Your task to perform on an android device: see creations saved in the google photos Image 0: 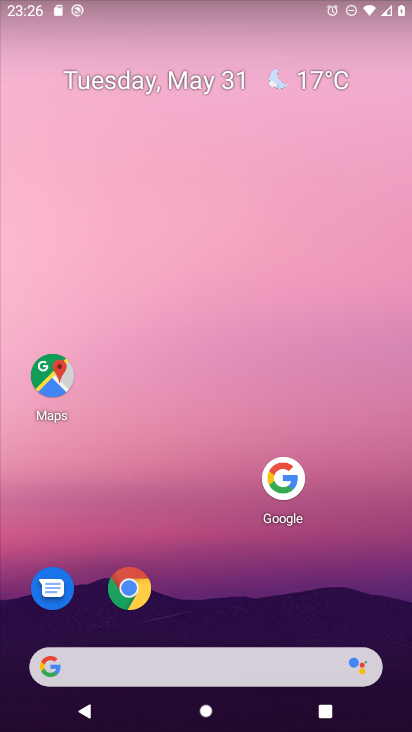
Step 0: press home button
Your task to perform on an android device: see creations saved in the google photos Image 1: 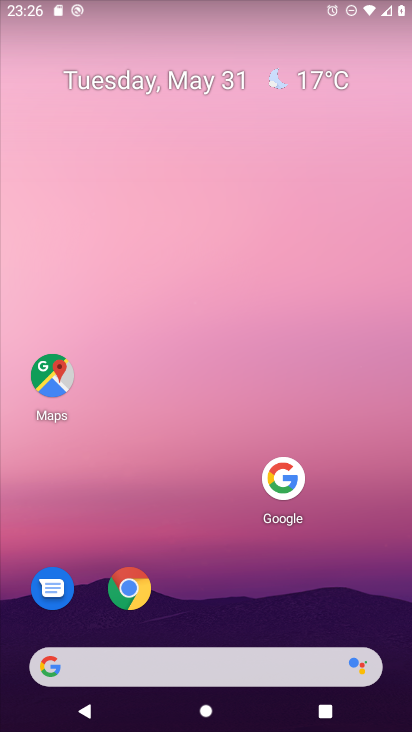
Step 1: drag from (189, 669) to (282, 112)
Your task to perform on an android device: see creations saved in the google photos Image 2: 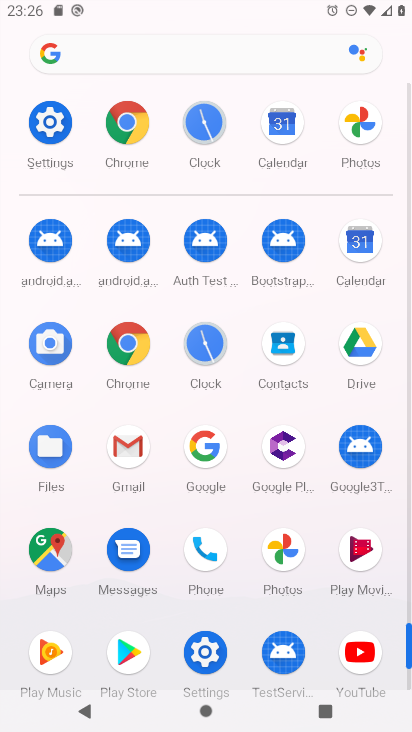
Step 2: click (283, 555)
Your task to perform on an android device: see creations saved in the google photos Image 3: 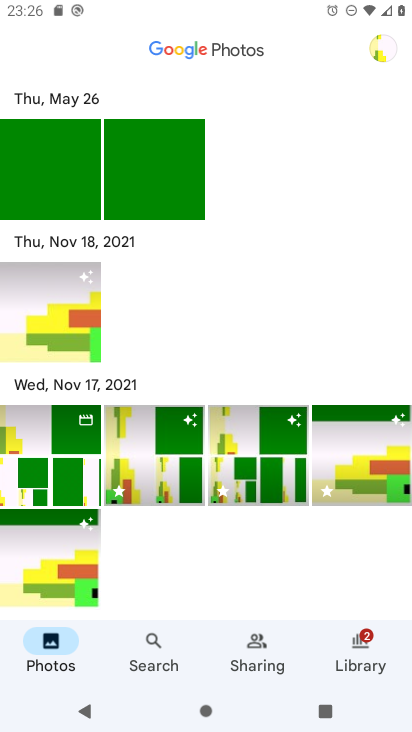
Step 3: click (149, 665)
Your task to perform on an android device: see creations saved in the google photos Image 4: 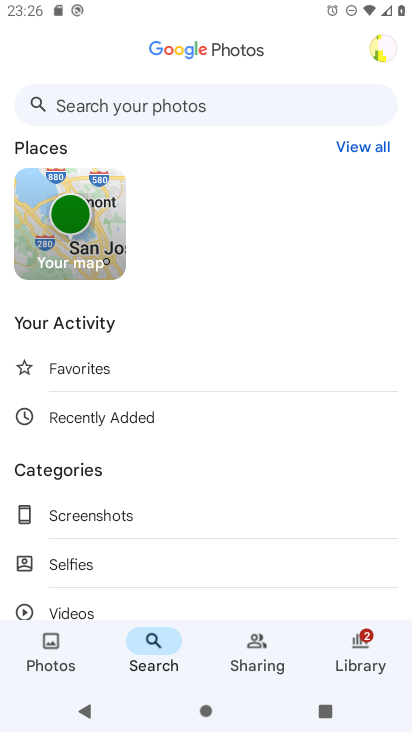
Step 4: drag from (191, 495) to (252, 136)
Your task to perform on an android device: see creations saved in the google photos Image 5: 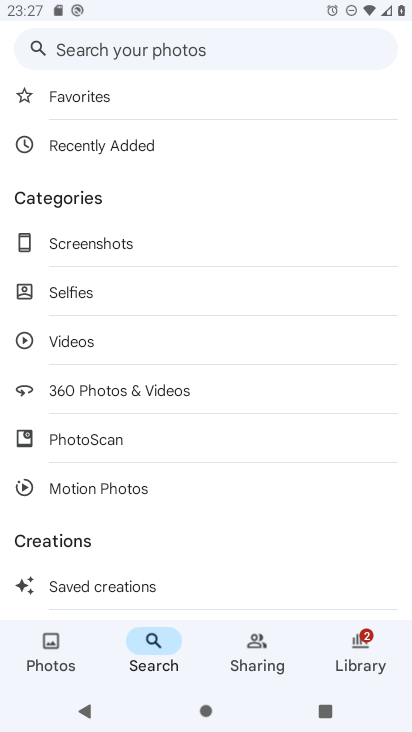
Step 5: click (94, 586)
Your task to perform on an android device: see creations saved in the google photos Image 6: 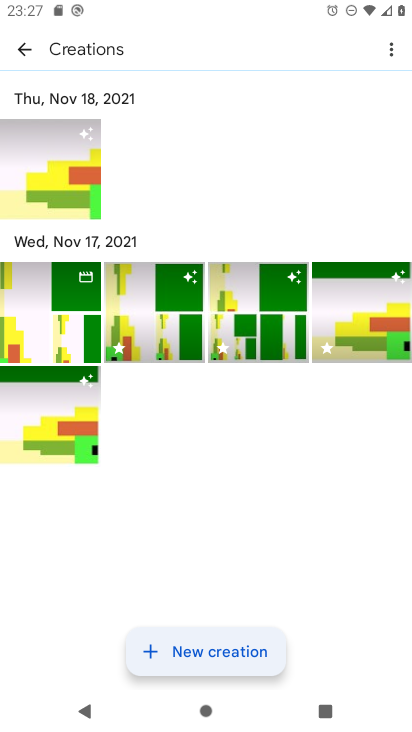
Step 6: task complete